Your task to perform on an android device: Open location settings Image 0: 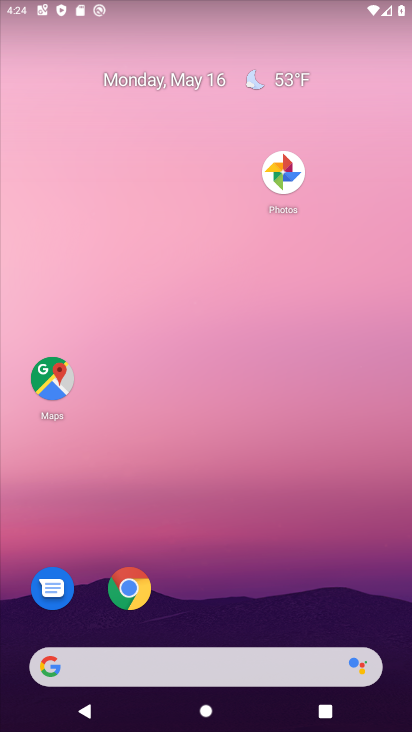
Step 0: drag from (194, 631) to (282, 62)
Your task to perform on an android device: Open location settings Image 1: 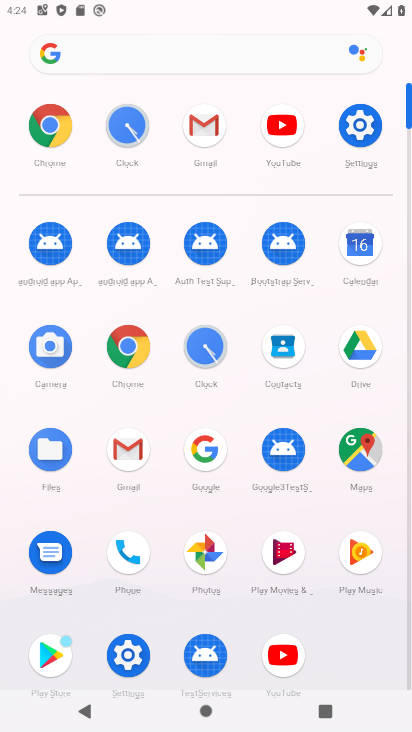
Step 1: click (375, 136)
Your task to perform on an android device: Open location settings Image 2: 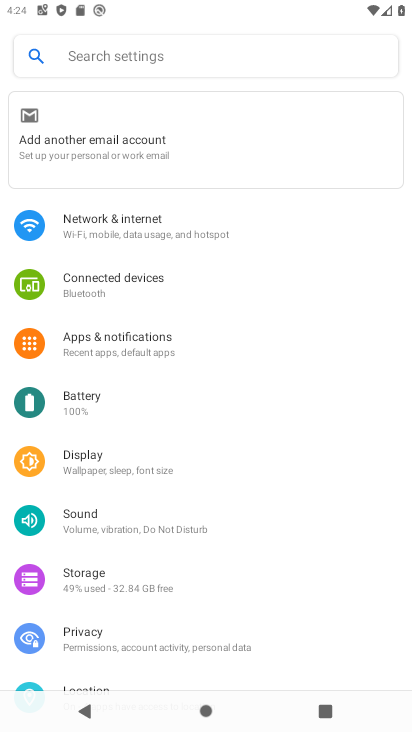
Step 2: click (89, 683)
Your task to perform on an android device: Open location settings Image 3: 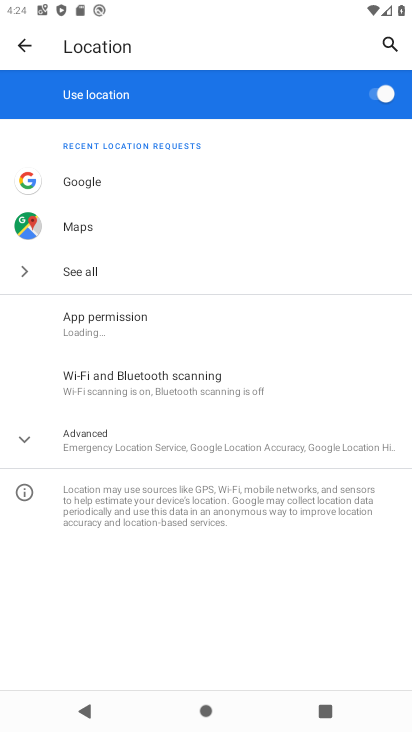
Step 3: task complete